Your task to perform on an android device: Open Google Chrome and click the shortcut for Amazon.com Image 0: 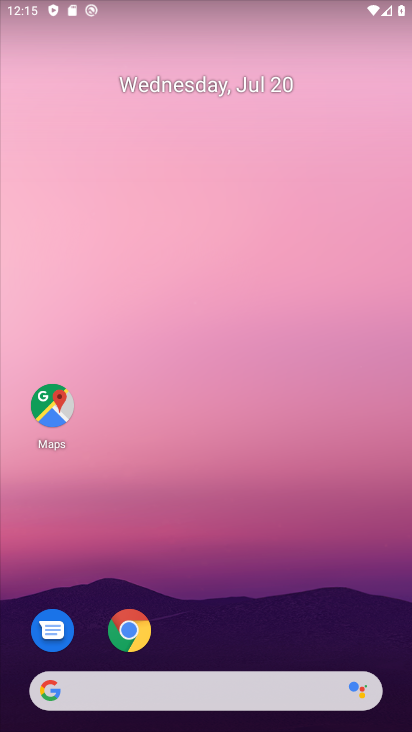
Step 0: press home button
Your task to perform on an android device: Open Google Chrome and click the shortcut for Amazon.com Image 1: 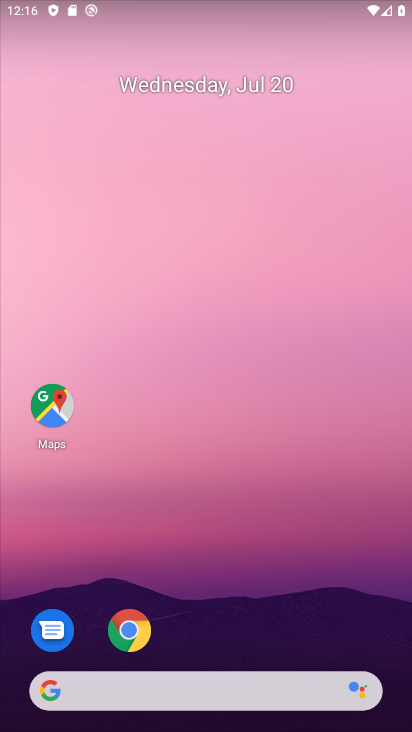
Step 1: click (120, 640)
Your task to perform on an android device: Open Google Chrome and click the shortcut for Amazon.com Image 2: 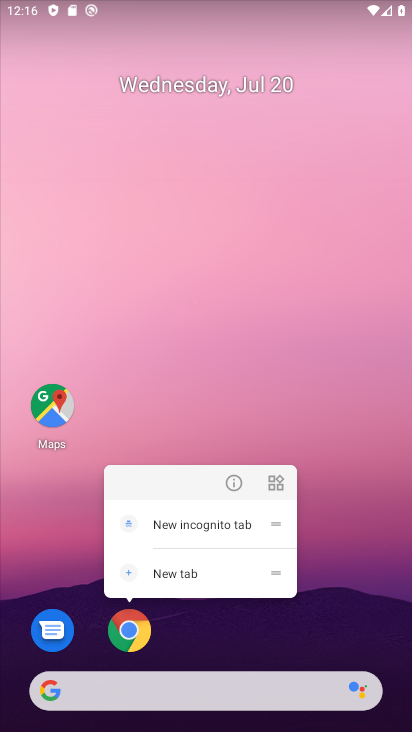
Step 2: click (119, 638)
Your task to perform on an android device: Open Google Chrome and click the shortcut for Amazon.com Image 3: 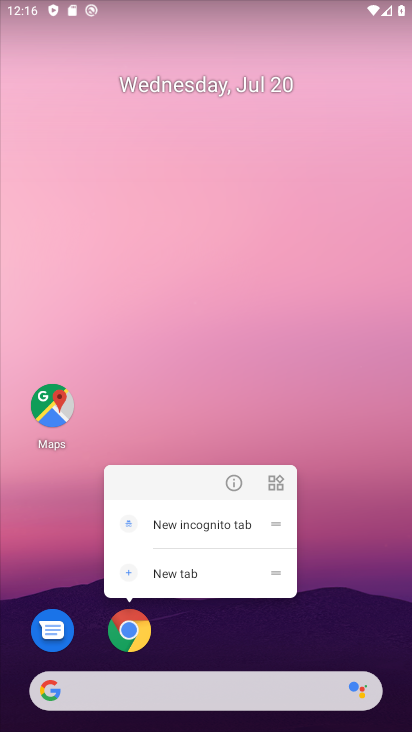
Step 3: click (135, 628)
Your task to perform on an android device: Open Google Chrome and click the shortcut for Amazon.com Image 4: 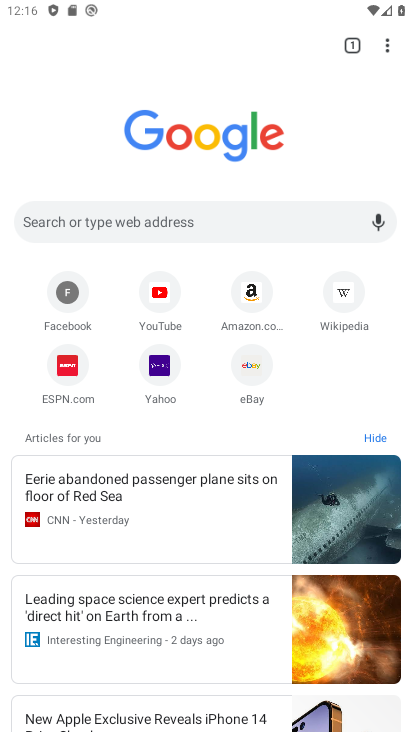
Step 4: click (264, 307)
Your task to perform on an android device: Open Google Chrome and click the shortcut for Amazon.com Image 5: 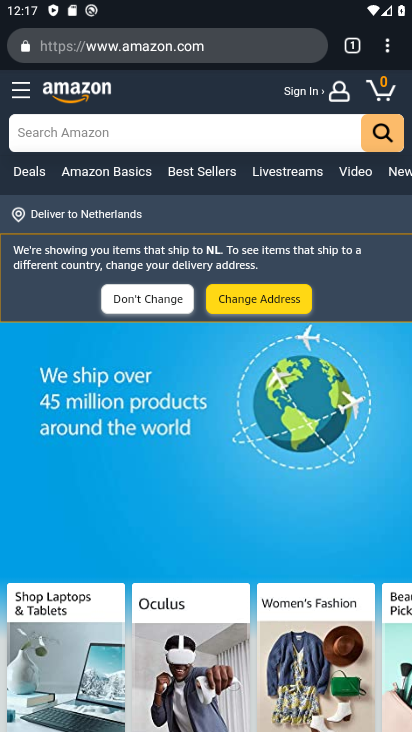
Step 5: task complete